Your task to perform on an android device: Do I have any events this weekend? Image 0: 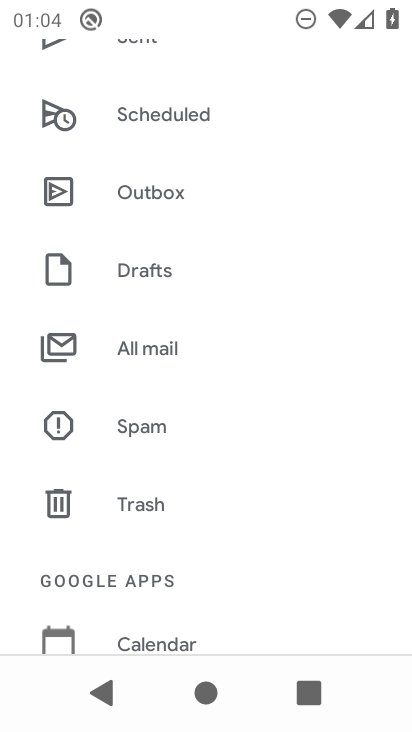
Step 0: press home button
Your task to perform on an android device: Do I have any events this weekend? Image 1: 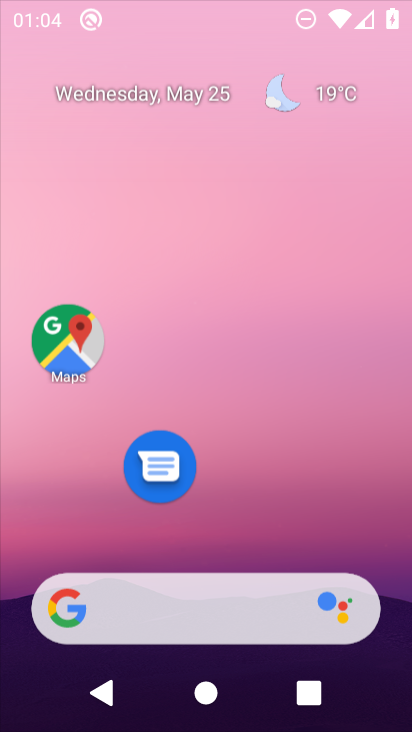
Step 1: drag from (193, 539) to (333, 75)
Your task to perform on an android device: Do I have any events this weekend? Image 2: 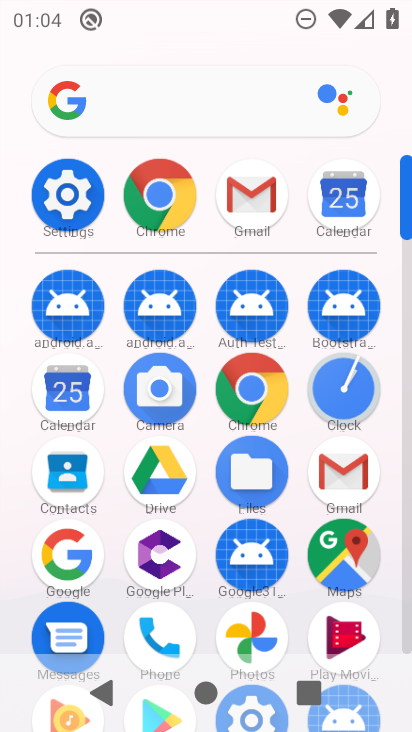
Step 2: click (62, 372)
Your task to perform on an android device: Do I have any events this weekend? Image 3: 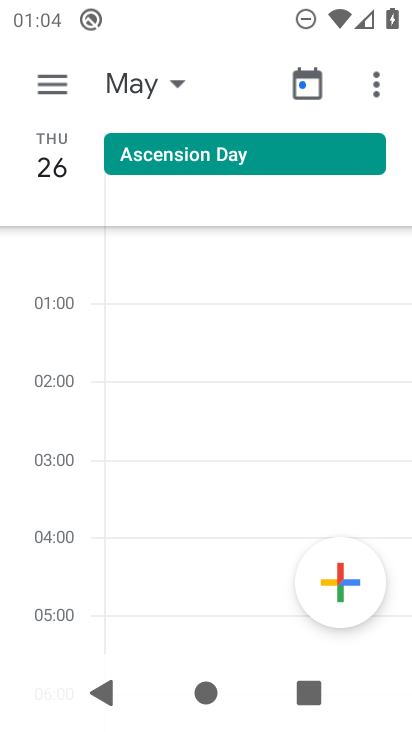
Step 3: click (136, 85)
Your task to perform on an android device: Do I have any events this weekend? Image 4: 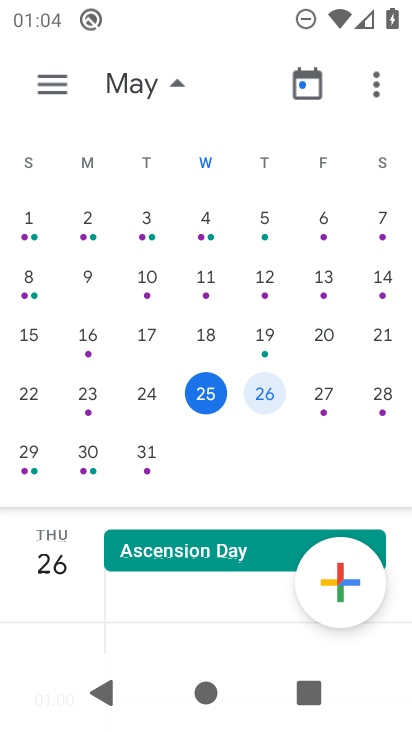
Step 4: click (319, 400)
Your task to perform on an android device: Do I have any events this weekend? Image 5: 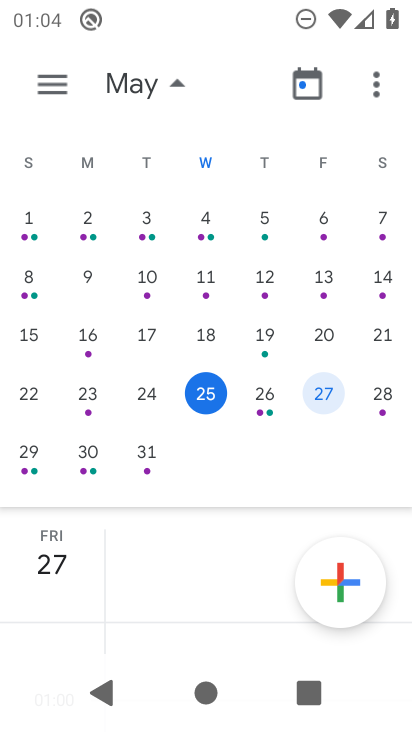
Step 5: task complete